Your task to perform on an android device: Toggle the flashlight Image 0: 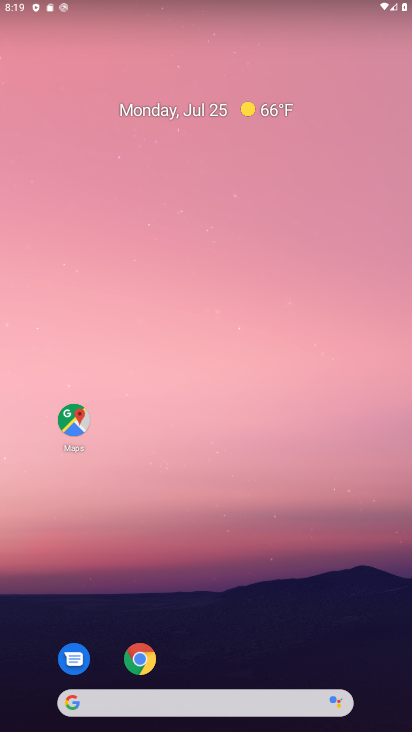
Step 0: drag from (243, 603) to (178, 118)
Your task to perform on an android device: Toggle the flashlight Image 1: 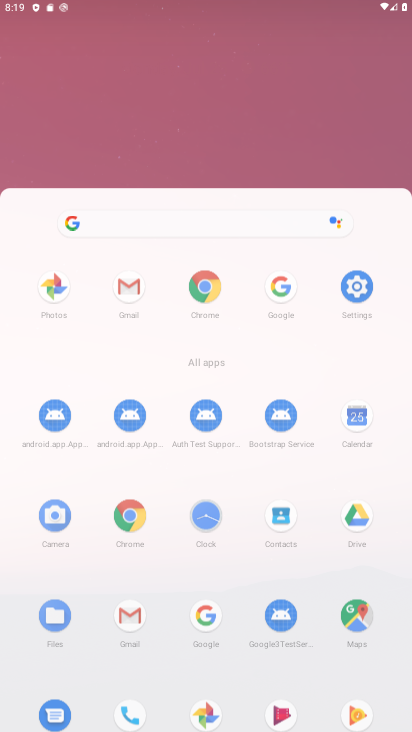
Step 1: task complete